Your task to perform on an android device: Show me popular videos on Youtube Image 0: 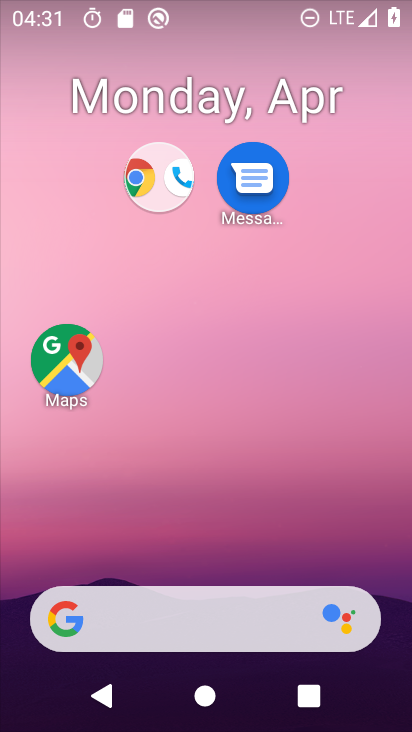
Step 0: drag from (313, 567) to (338, 18)
Your task to perform on an android device: Show me popular videos on Youtube Image 1: 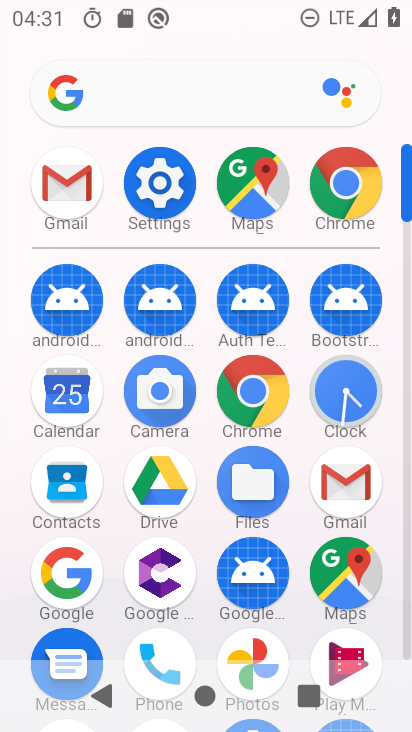
Step 1: drag from (297, 616) to (318, 97)
Your task to perform on an android device: Show me popular videos on Youtube Image 2: 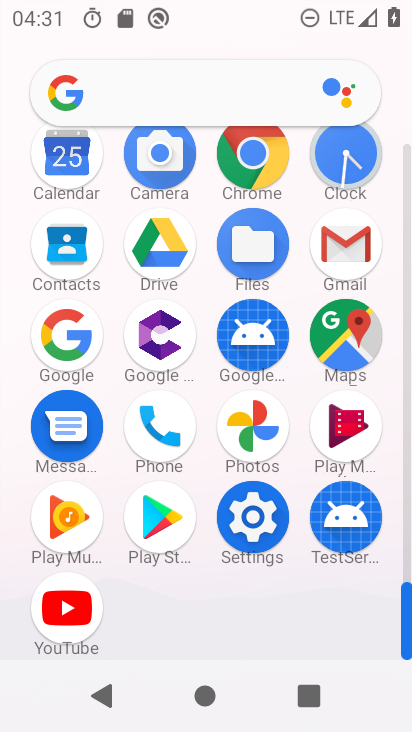
Step 2: click (55, 625)
Your task to perform on an android device: Show me popular videos on Youtube Image 3: 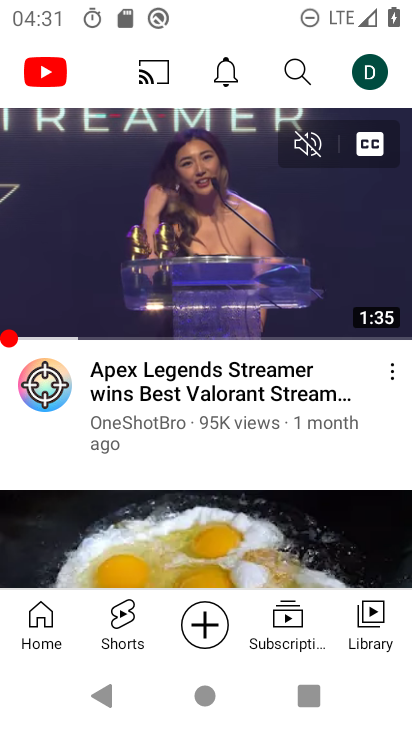
Step 3: click (295, 72)
Your task to perform on an android device: Show me popular videos on Youtube Image 4: 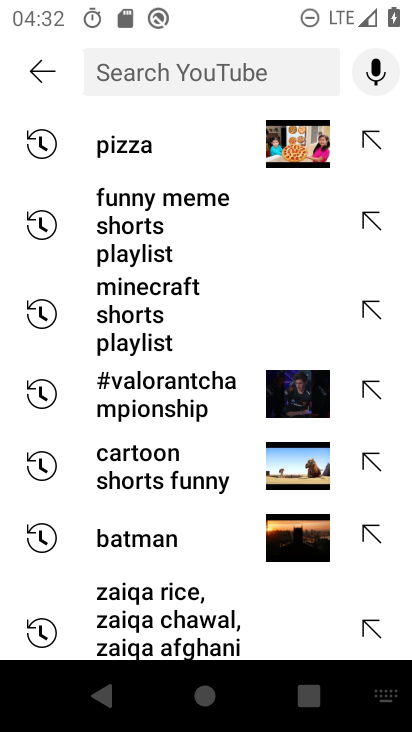
Step 4: type "popular videos"
Your task to perform on an android device: Show me popular videos on Youtube Image 5: 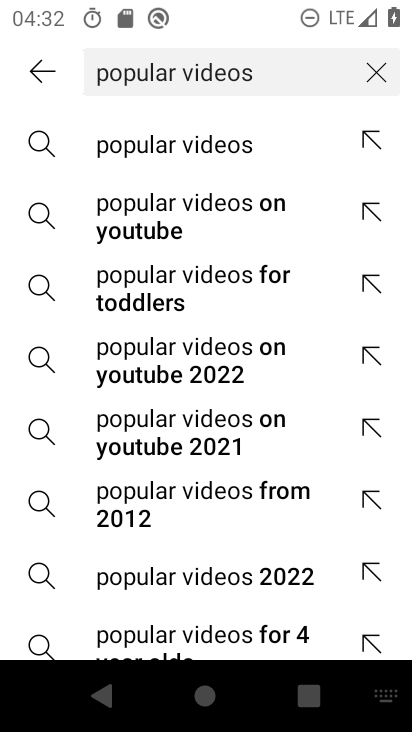
Step 5: click (261, 156)
Your task to perform on an android device: Show me popular videos on Youtube Image 6: 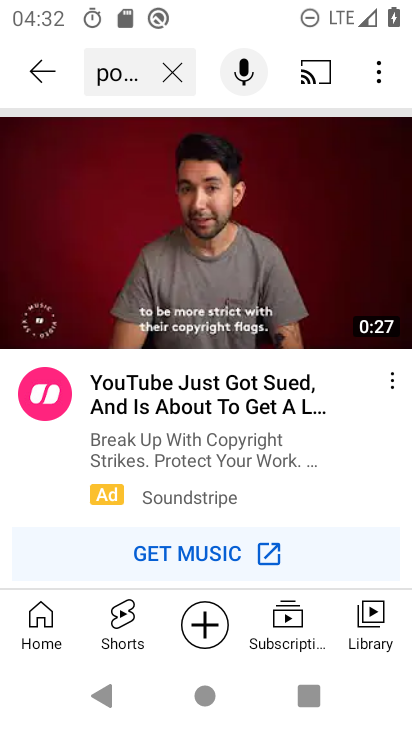
Step 6: task complete